Your task to perform on an android device: Open Google Maps Image 0: 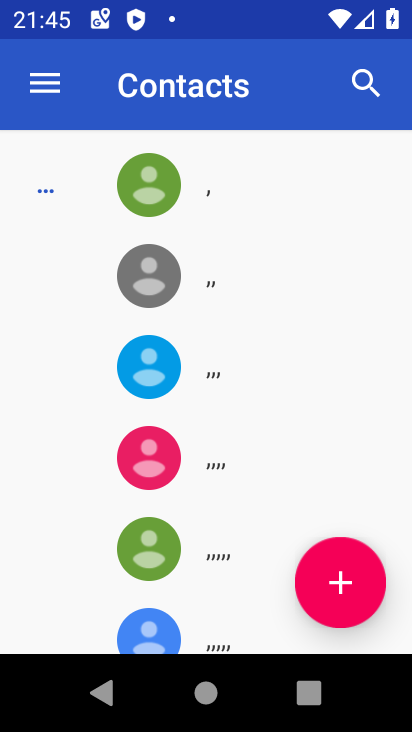
Step 0: press home button
Your task to perform on an android device: Open Google Maps Image 1: 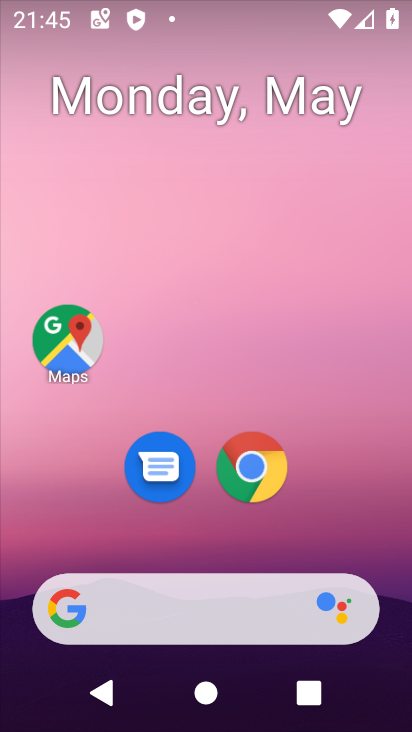
Step 1: click (70, 340)
Your task to perform on an android device: Open Google Maps Image 2: 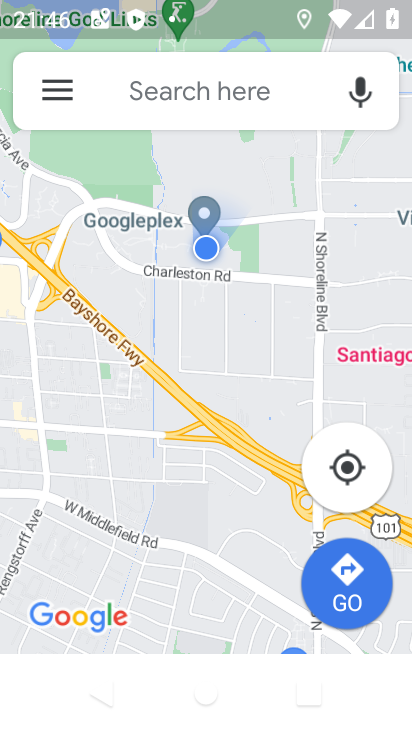
Step 2: task complete